Your task to perform on an android device: open wifi settings Image 0: 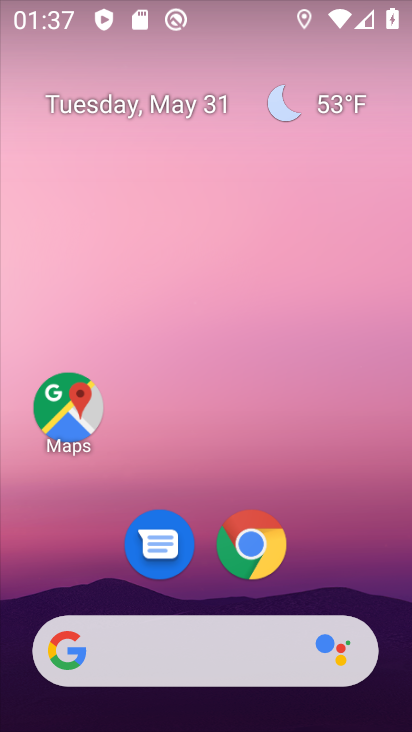
Step 0: drag from (264, 13) to (252, 577)
Your task to perform on an android device: open wifi settings Image 1: 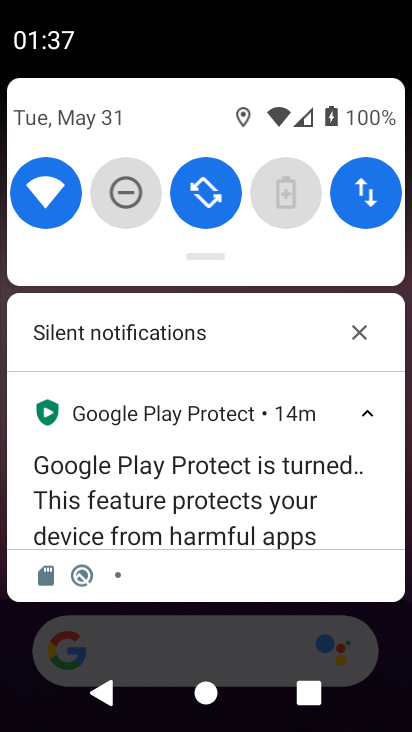
Step 1: click (57, 192)
Your task to perform on an android device: open wifi settings Image 2: 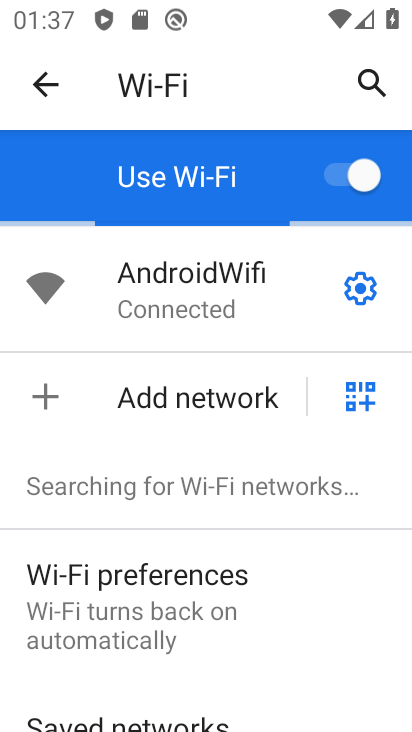
Step 2: task complete